Your task to perform on an android device: Open calendar and show me the second week of next month Image 0: 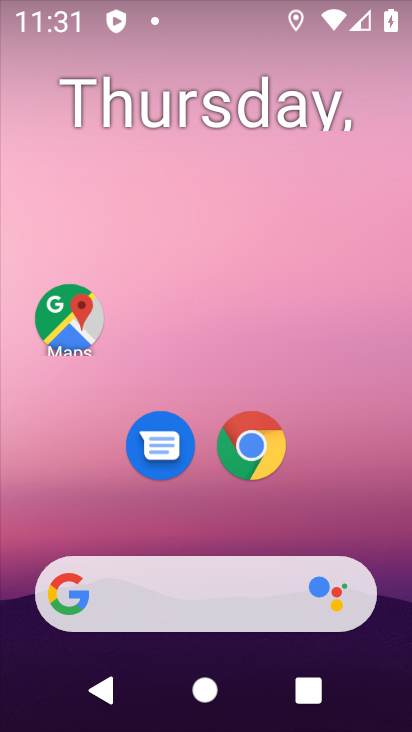
Step 0: drag from (399, 613) to (286, 62)
Your task to perform on an android device: Open calendar and show me the second week of next month Image 1: 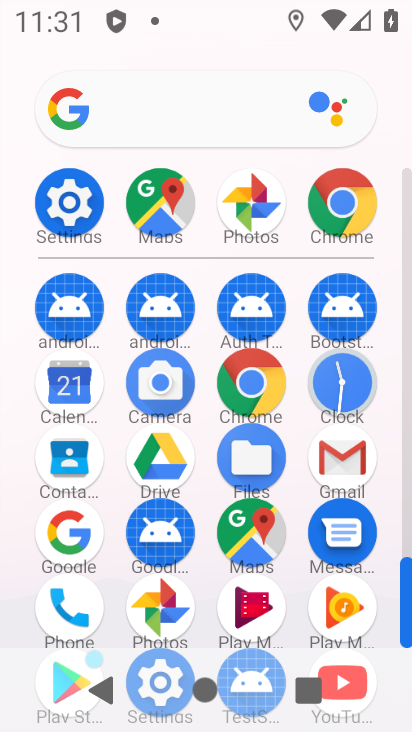
Step 1: click (69, 395)
Your task to perform on an android device: Open calendar and show me the second week of next month Image 2: 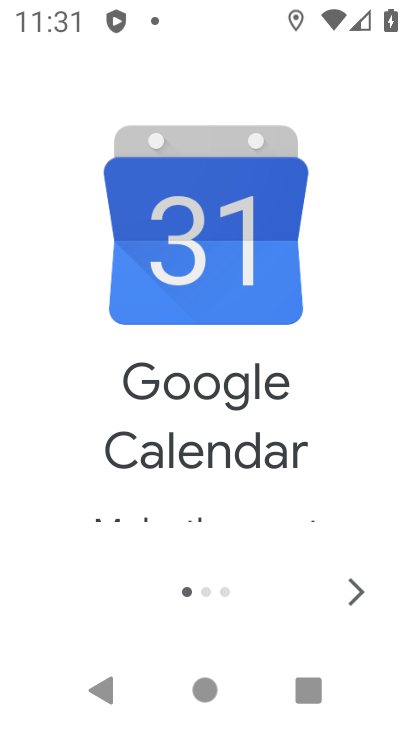
Step 2: click (335, 590)
Your task to perform on an android device: Open calendar and show me the second week of next month Image 3: 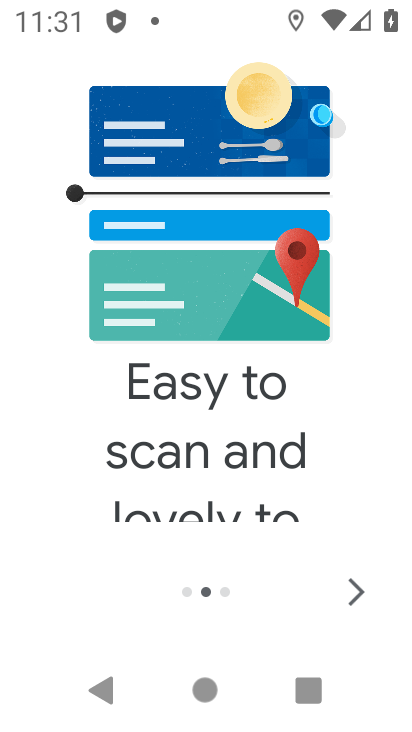
Step 3: click (347, 594)
Your task to perform on an android device: Open calendar and show me the second week of next month Image 4: 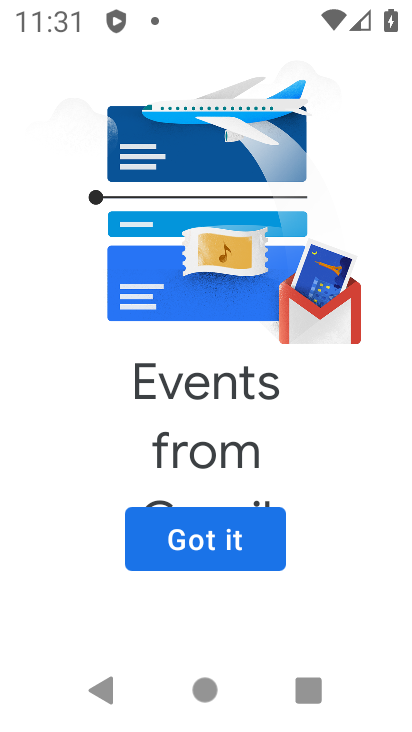
Step 4: click (222, 542)
Your task to perform on an android device: Open calendar and show me the second week of next month Image 5: 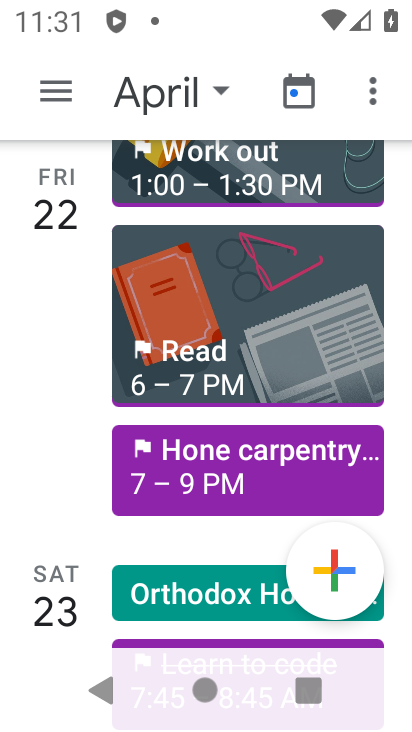
Step 5: click (117, 90)
Your task to perform on an android device: Open calendar and show me the second week of next month Image 6: 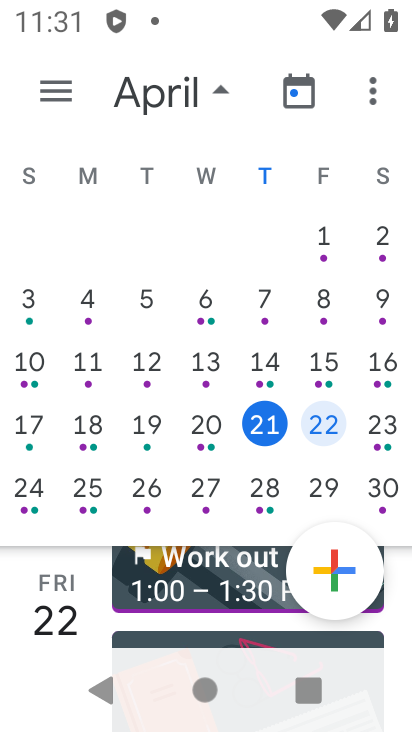
Step 6: drag from (331, 354) to (7, 355)
Your task to perform on an android device: Open calendar and show me the second week of next month Image 7: 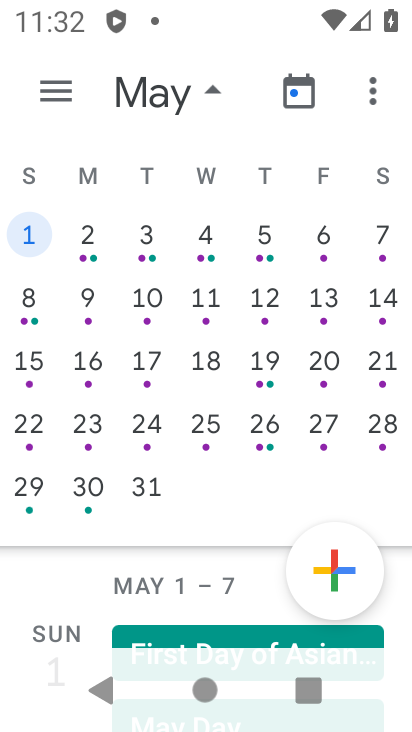
Step 7: click (79, 304)
Your task to perform on an android device: Open calendar and show me the second week of next month Image 8: 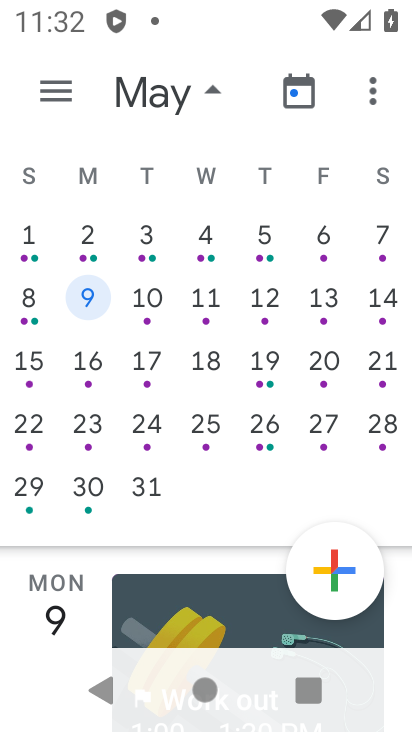
Step 8: task complete